Your task to perform on an android device: check google app version Image 0: 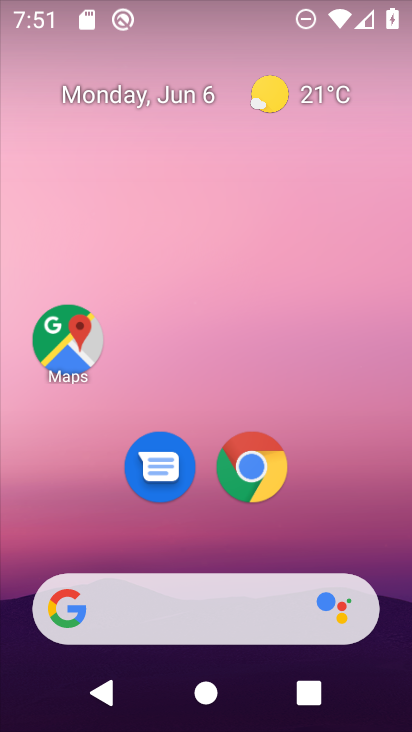
Step 0: drag from (365, 539) to (364, 138)
Your task to perform on an android device: check google app version Image 1: 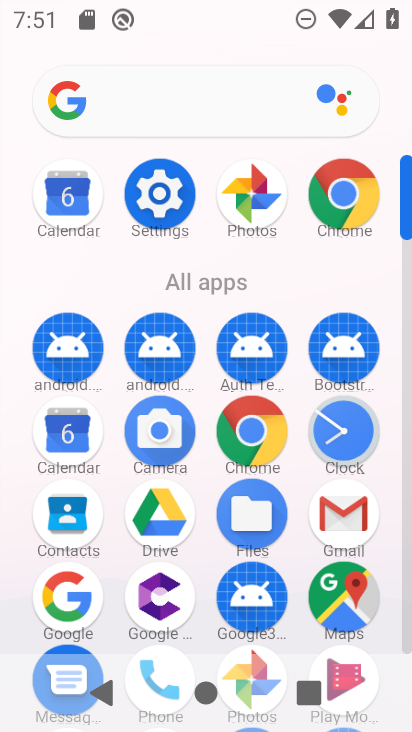
Step 1: click (75, 610)
Your task to perform on an android device: check google app version Image 2: 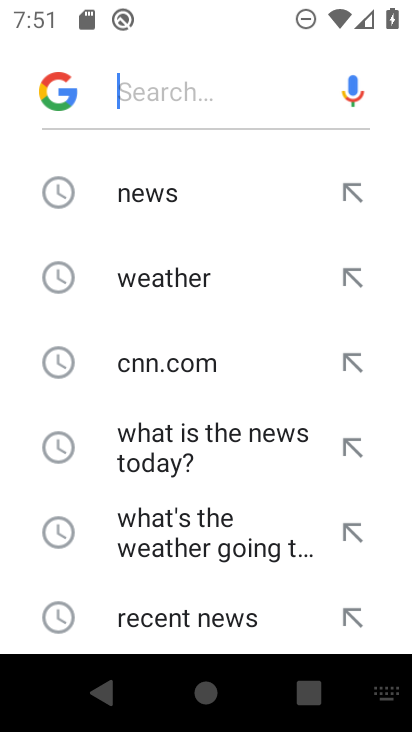
Step 2: press back button
Your task to perform on an android device: check google app version Image 3: 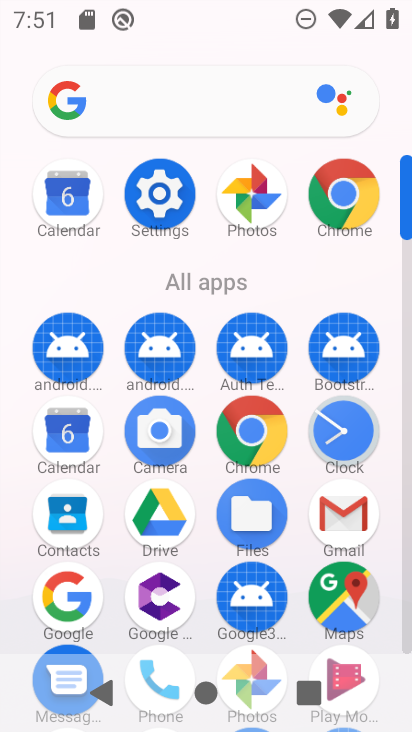
Step 3: click (55, 610)
Your task to perform on an android device: check google app version Image 4: 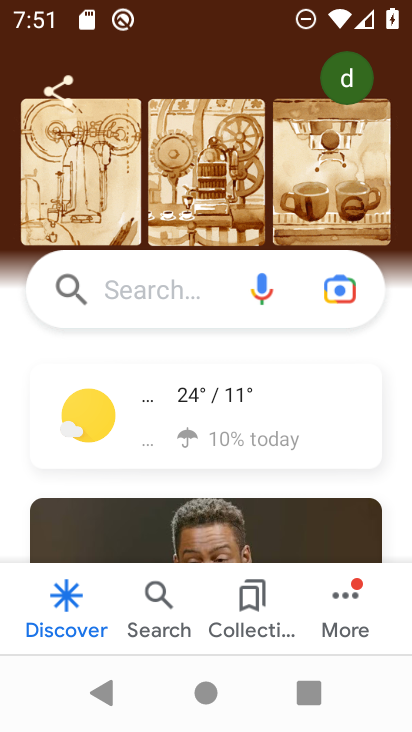
Step 4: click (355, 606)
Your task to perform on an android device: check google app version Image 5: 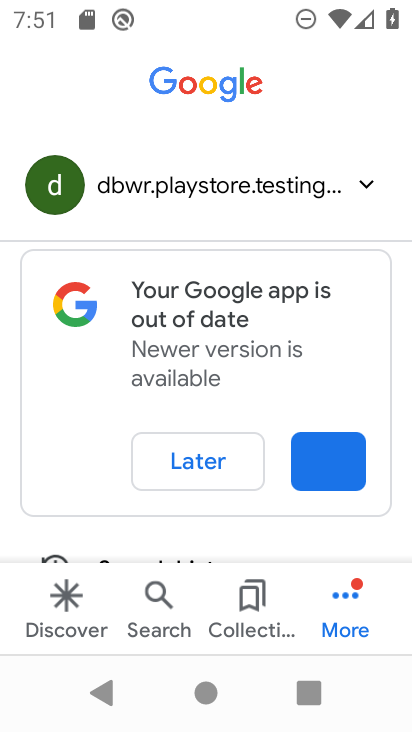
Step 5: click (355, 606)
Your task to perform on an android device: check google app version Image 6: 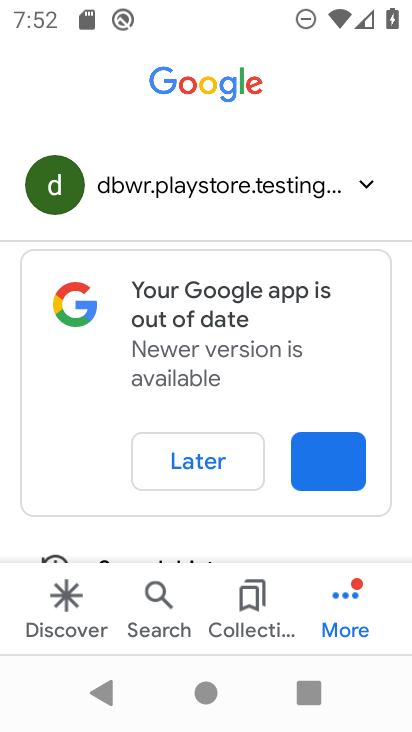
Step 6: drag from (330, 361) to (348, 171)
Your task to perform on an android device: check google app version Image 7: 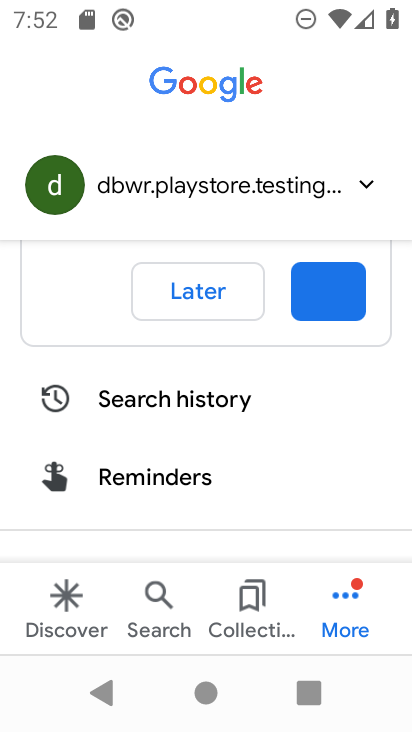
Step 7: drag from (303, 485) to (300, 266)
Your task to perform on an android device: check google app version Image 8: 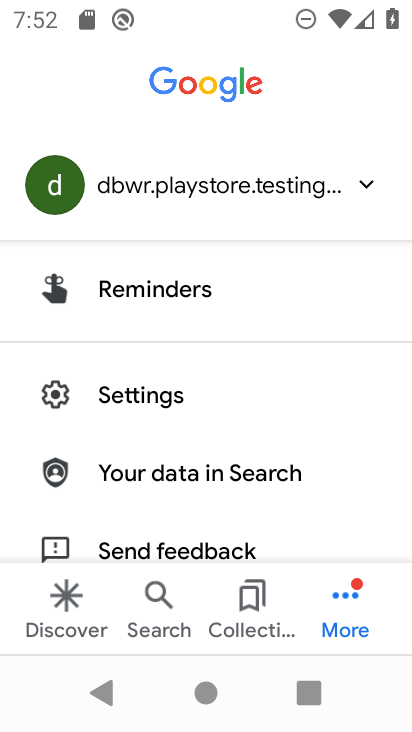
Step 8: click (183, 395)
Your task to perform on an android device: check google app version Image 9: 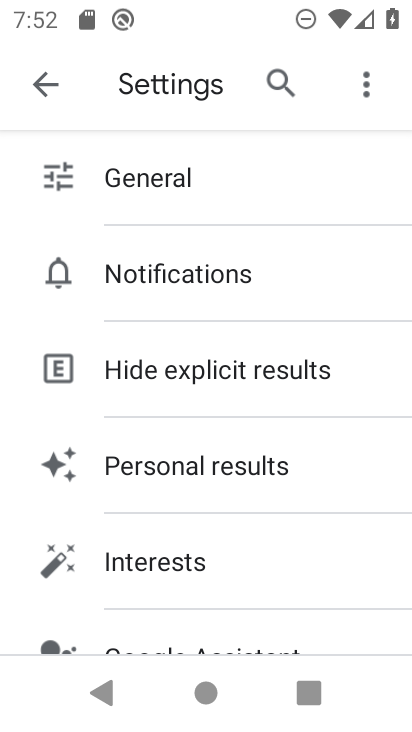
Step 9: drag from (310, 513) to (322, 337)
Your task to perform on an android device: check google app version Image 10: 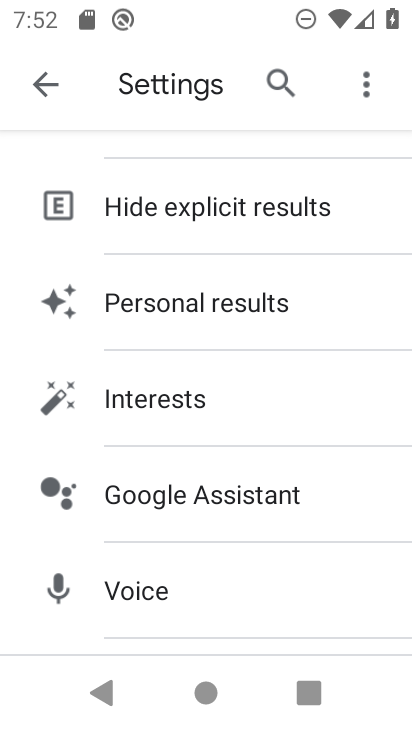
Step 10: drag from (312, 529) to (326, 319)
Your task to perform on an android device: check google app version Image 11: 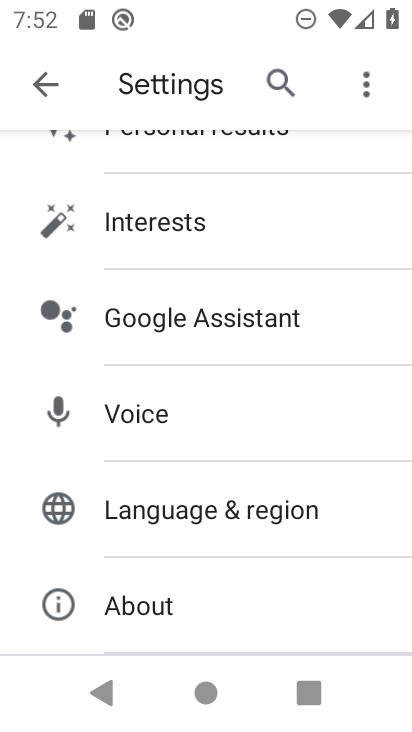
Step 11: drag from (311, 576) to (294, 306)
Your task to perform on an android device: check google app version Image 12: 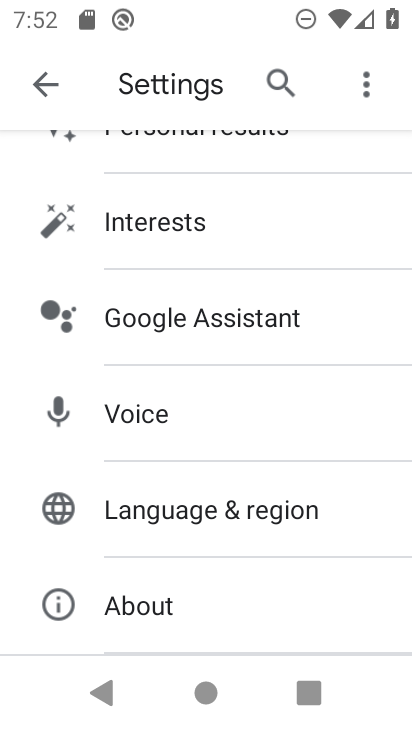
Step 12: drag from (307, 543) to (285, 347)
Your task to perform on an android device: check google app version Image 13: 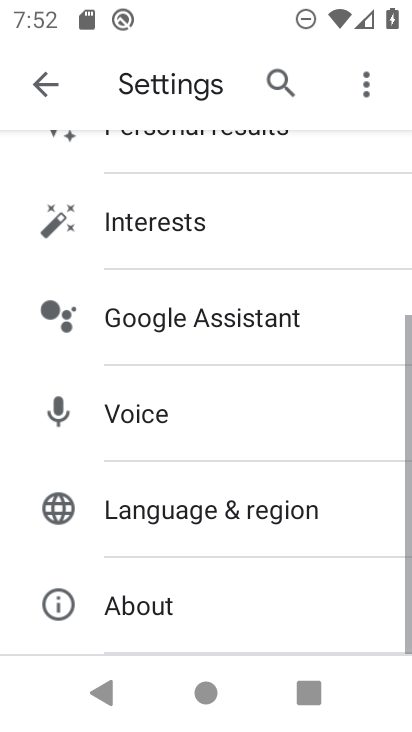
Step 13: click (211, 596)
Your task to perform on an android device: check google app version Image 14: 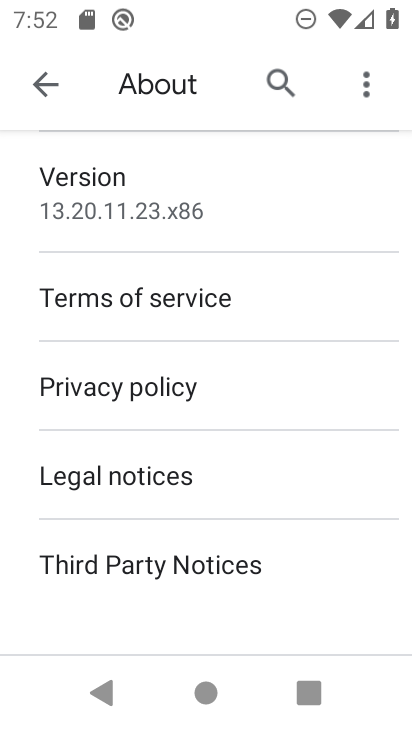
Step 14: task complete